Your task to perform on an android device: Clear all items from cart on bestbuy. Image 0: 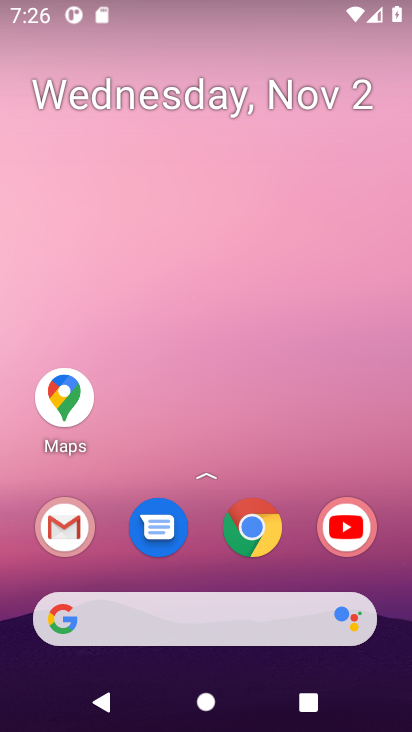
Step 0: click (252, 532)
Your task to perform on an android device: Clear all items from cart on bestbuy. Image 1: 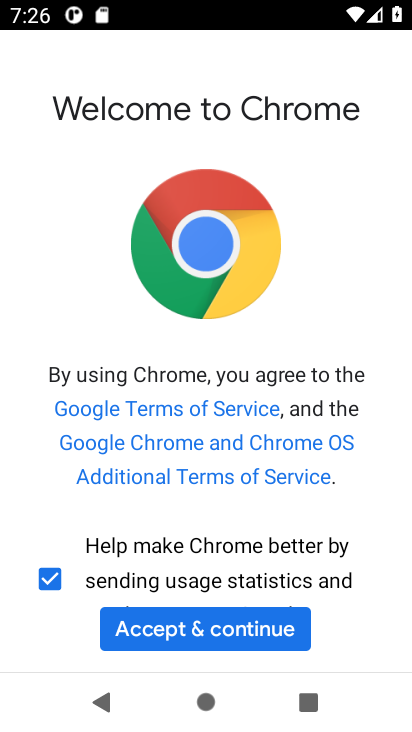
Step 1: click (174, 627)
Your task to perform on an android device: Clear all items from cart on bestbuy. Image 2: 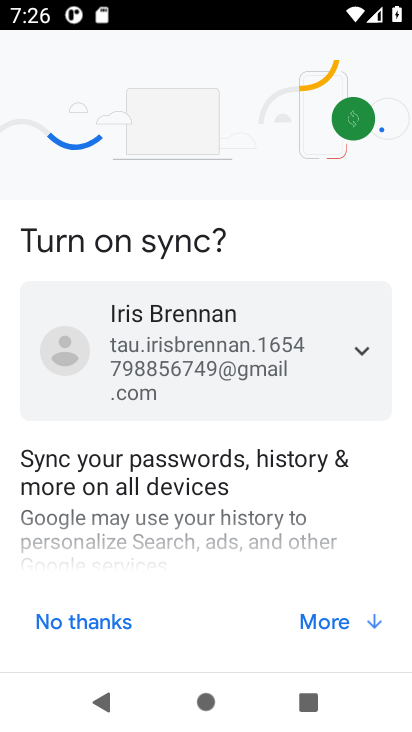
Step 2: click (96, 624)
Your task to perform on an android device: Clear all items from cart on bestbuy. Image 3: 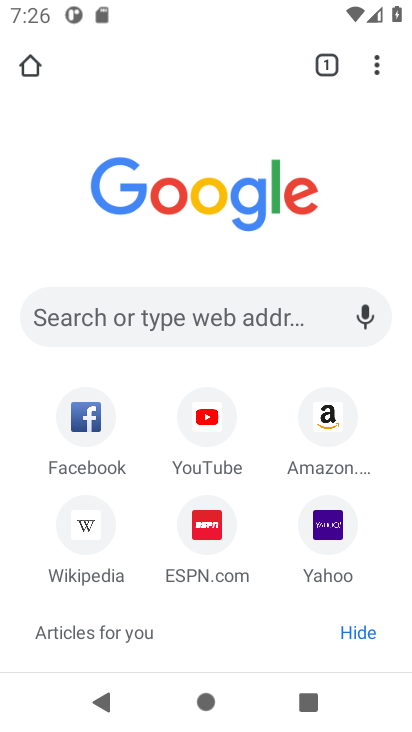
Step 3: click (170, 324)
Your task to perform on an android device: Clear all items from cart on bestbuy. Image 4: 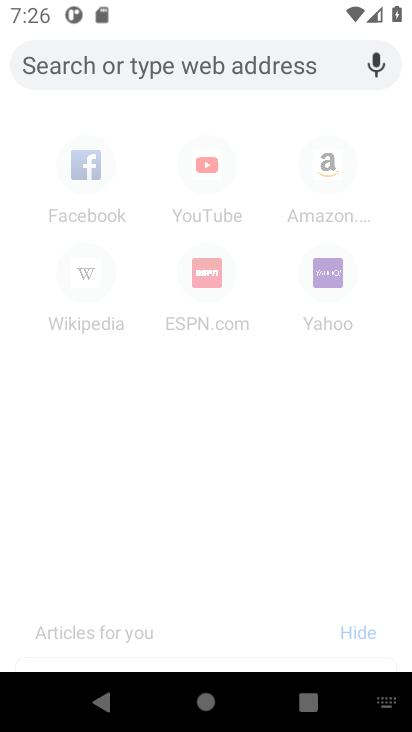
Step 4: type "bestbuy"
Your task to perform on an android device: Clear all items from cart on bestbuy. Image 5: 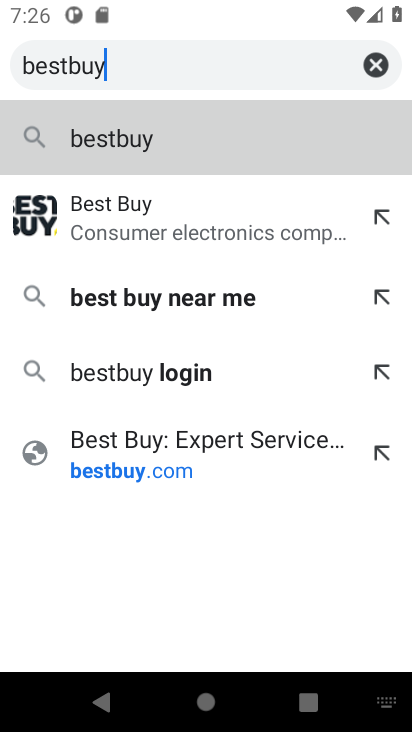
Step 5: click (158, 161)
Your task to perform on an android device: Clear all items from cart on bestbuy. Image 6: 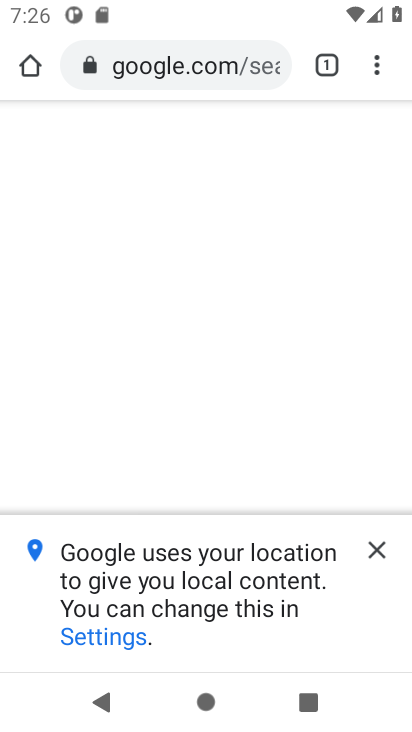
Step 6: click (379, 550)
Your task to perform on an android device: Clear all items from cart on bestbuy. Image 7: 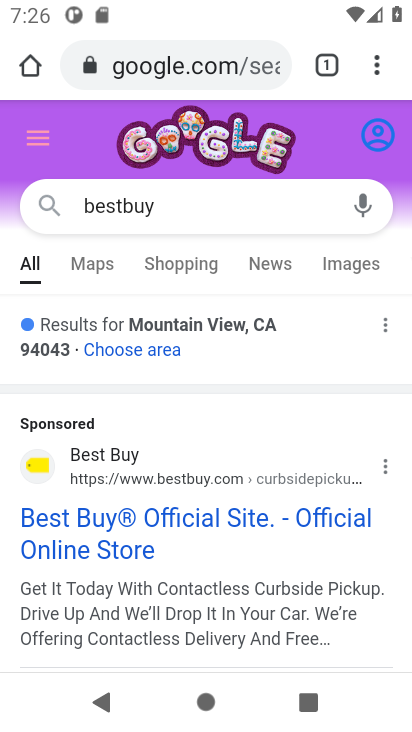
Step 7: click (170, 520)
Your task to perform on an android device: Clear all items from cart on bestbuy. Image 8: 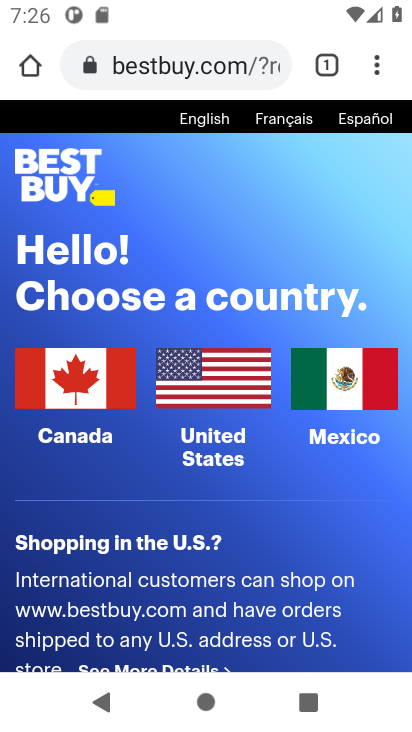
Step 8: click (205, 397)
Your task to perform on an android device: Clear all items from cart on bestbuy. Image 9: 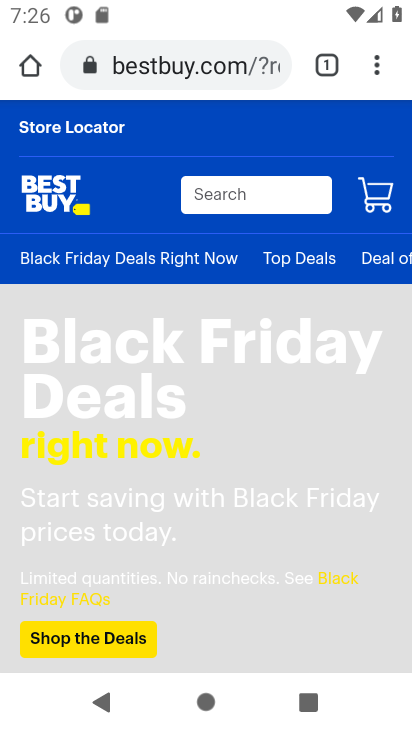
Step 9: click (375, 197)
Your task to perform on an android device: Clear all items from cart on bestbuy. Image 10: 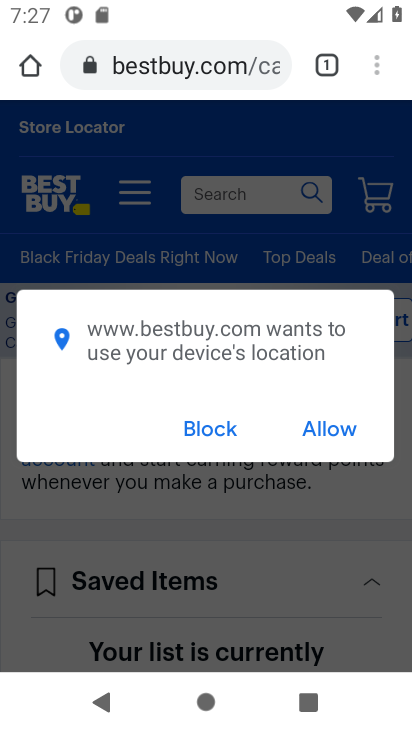
Step 10: task complete